Your task to perform on an android device: find which apps use the phone's location Image 0: 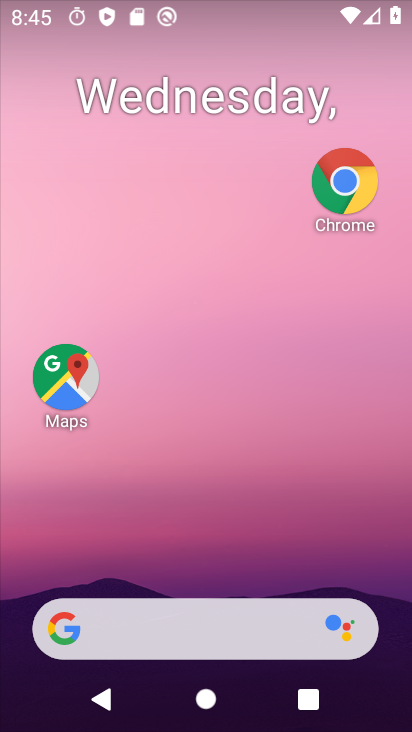
Step 0: drag from (209, 672) to (276, 262)
Your task to perform on an android device: find which apps use the phone's location Image 1: 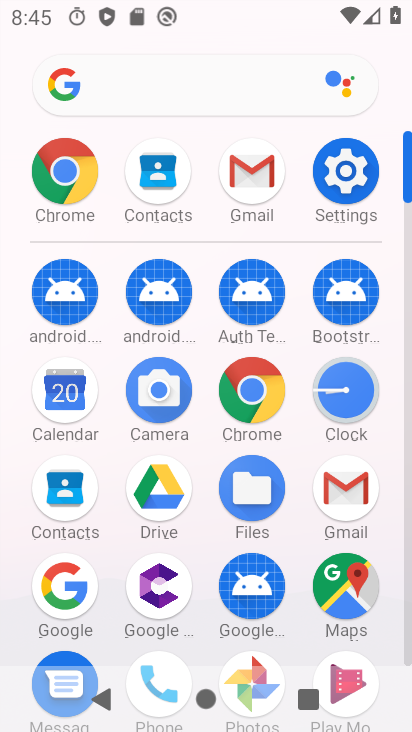
Step 1: click (356, 189)
Your task to perform on an android device: find which apps use the phone's location Image 2: 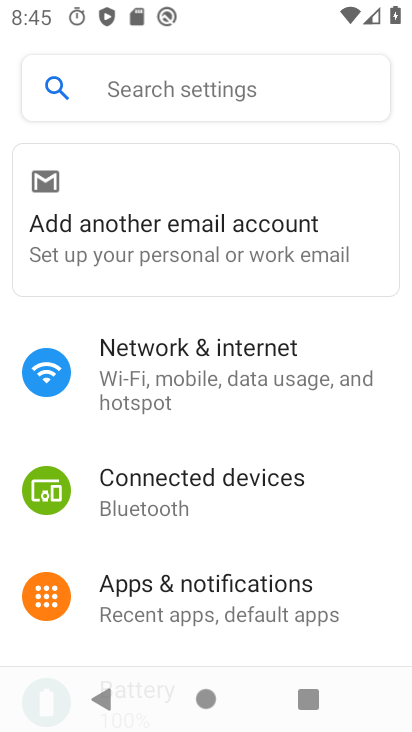
Step 2: click (186, 96)
Your task to perform on an android device: find which apps use the phone's location Image 3: 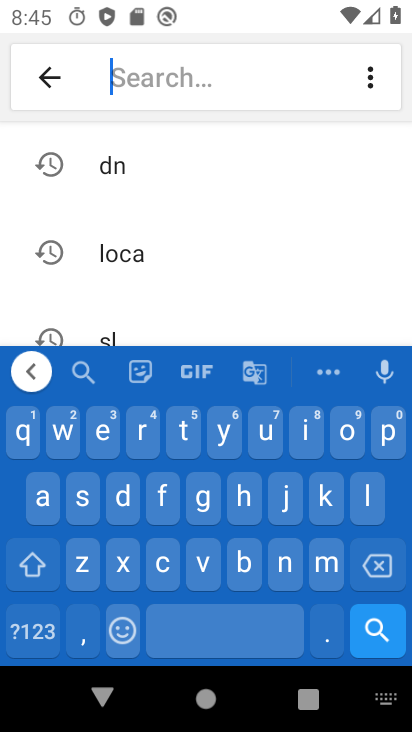
Step 3: click (126, 257)
Your task to perform on an android device: find which apps use the phone's location Image 4: 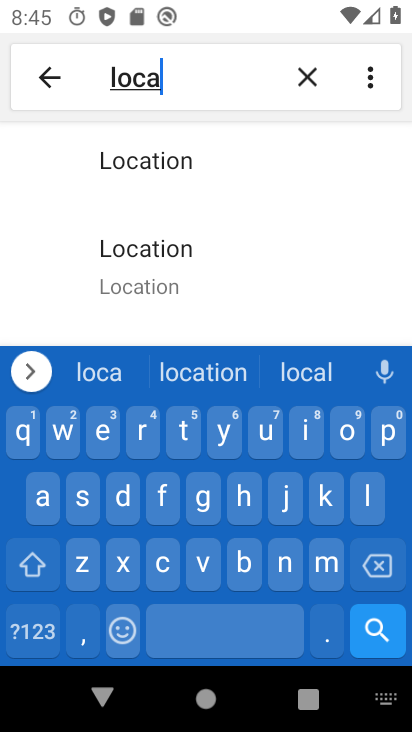
Step 4: click (126, 257)
Your task to perform on an android device: find which apps use the phone's location Image 5: 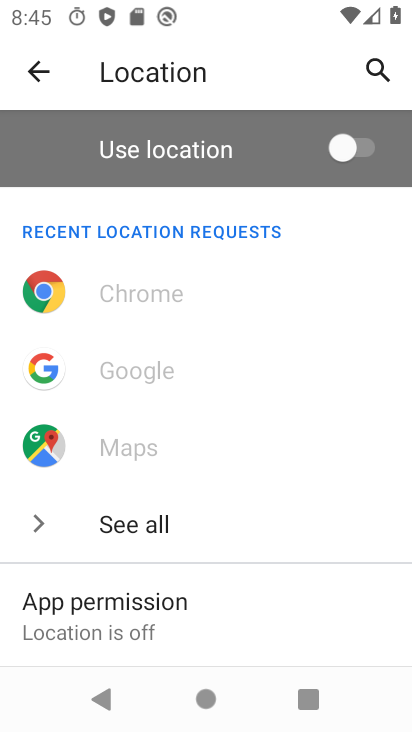
Step 5: task complete